Your task to perform on an android device: turn off location history Image 0: 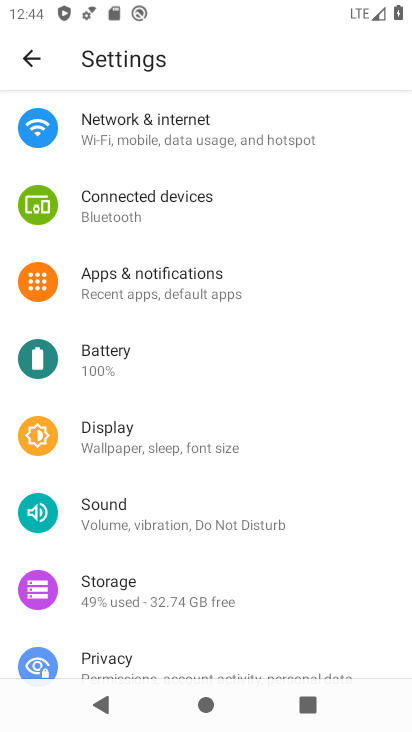
Step 0: drag from (144, 630) to (244, 264)
Your task to perform on an android device: turn off location history Image 1: 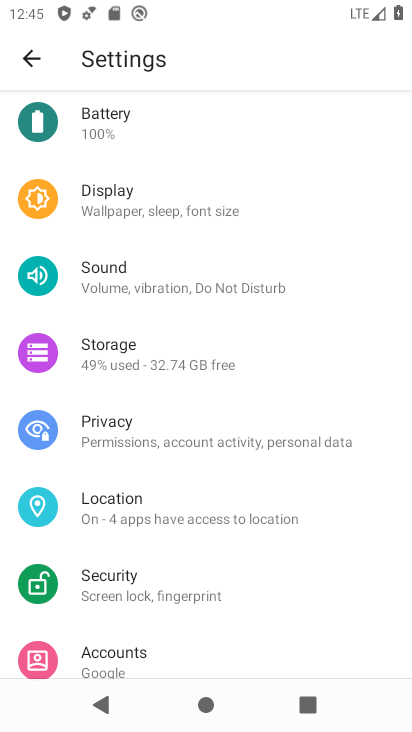
Step 1: click (147, 518)
Your task to perform on an android device: turn off location history Image 2: 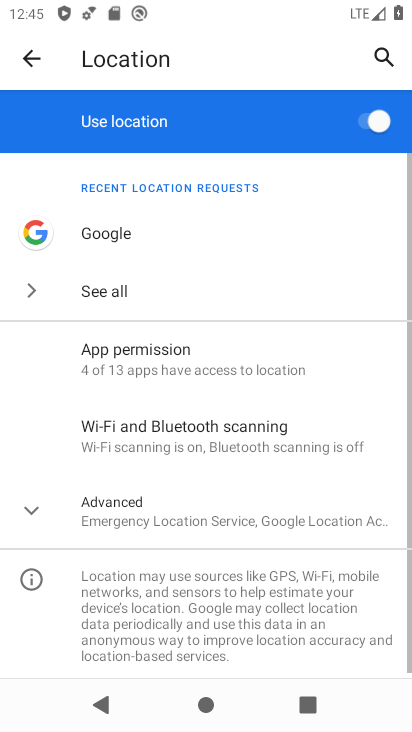
Step 2: click (201, 522)
Your task to perform on an android device: turn off location history Image 3: 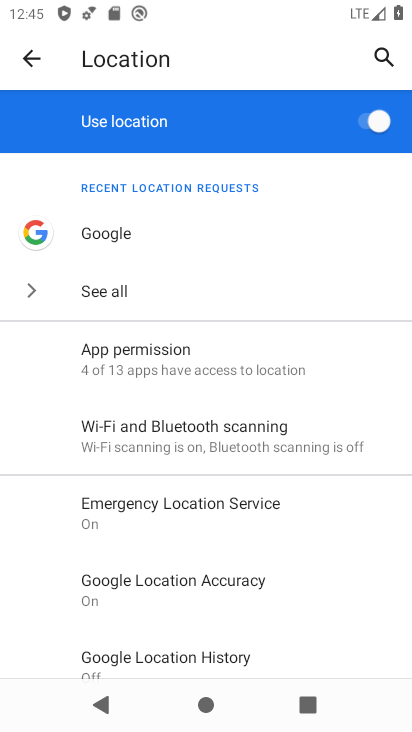
Step 3: drag from (206, 644) to (293, 423)
Your task to perform on an android device: turn off location history Image 4: 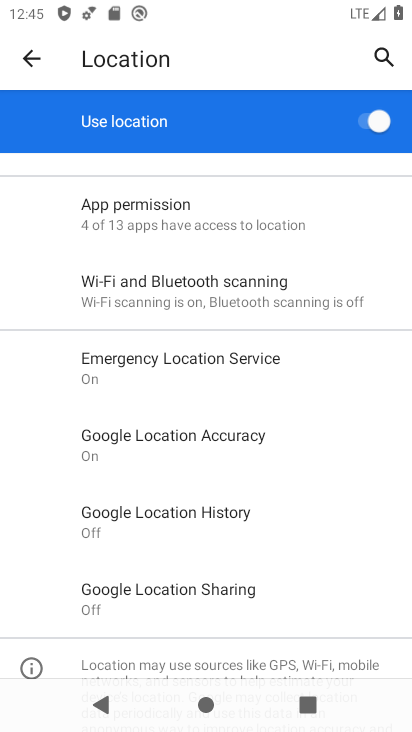
Step 4: click (249, 530)
Your task to perform on an android device: turn off location history Image 5: 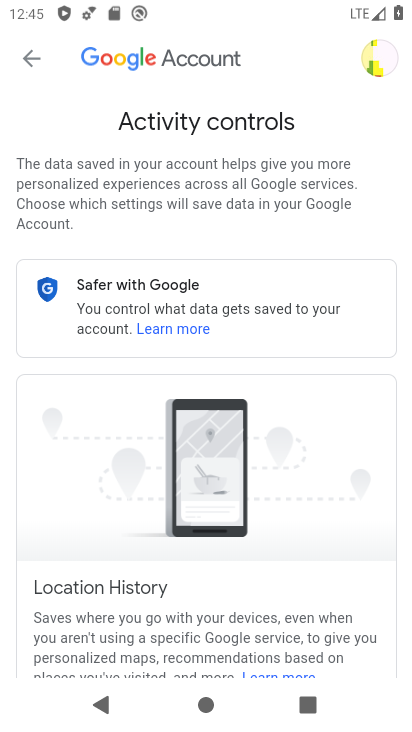
Step 5: task complete